Your task to perform on an android device: change text size in settings app Image 0: 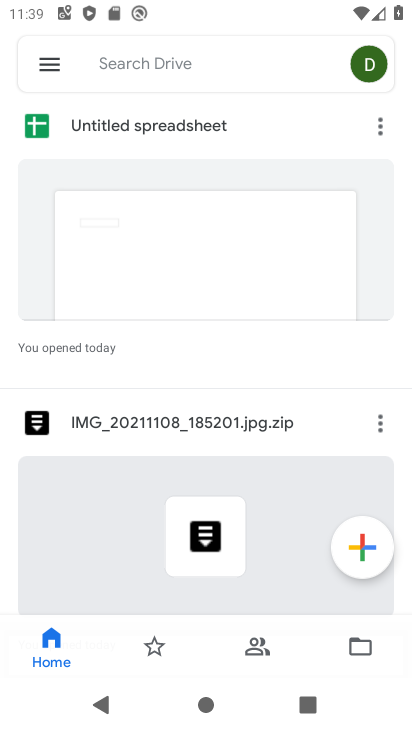
Step 0: press home button
Your task to perform on an android device: change text size in settings app Image 1: 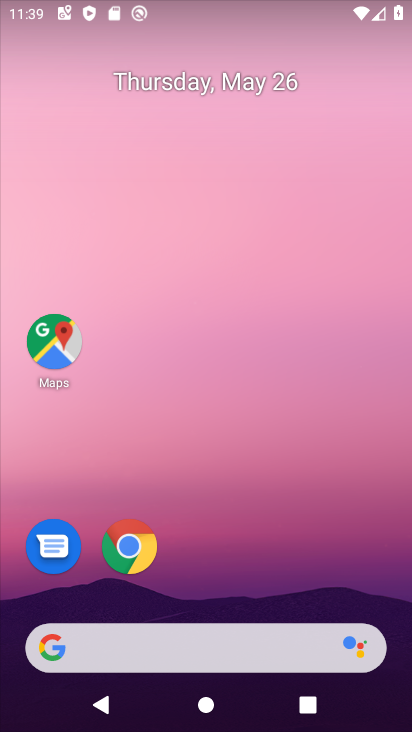
Step 1: drag from (270, 518) to (163, 82)
Your task to perform on an android device: change text size in settings app Image 2: 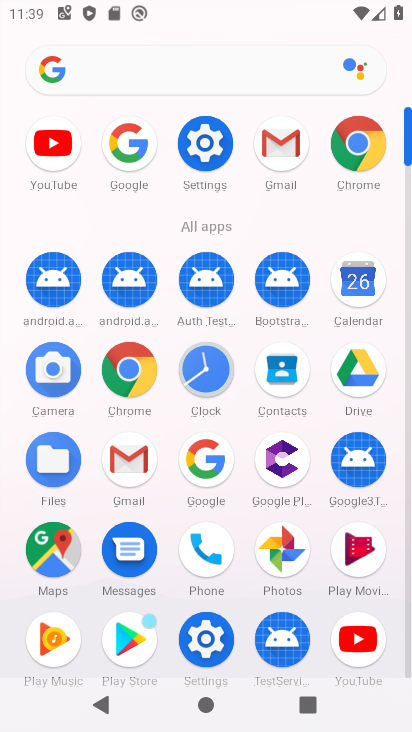
Step 2: click (199, 143)
Your task to perform on an android device: change text size in settings app Image 3: 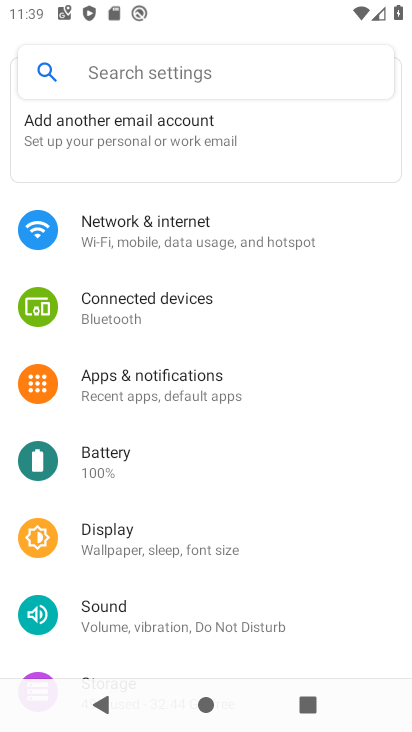
Step 3: click (114, 544)
Your task to perform on an android device: change text size in settings app Image 4: 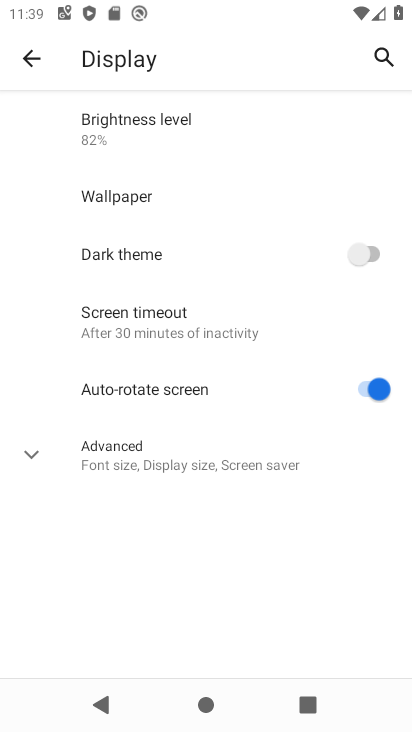
Step 4: click (99, 444)
Your task to perform on an android device: change text size in settings app Image 5: 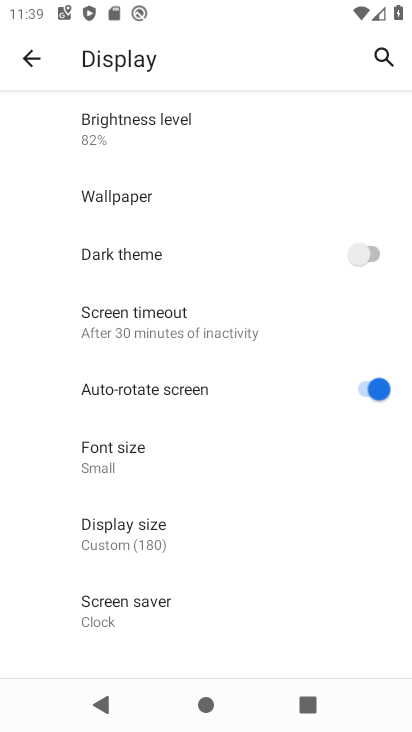
Step 5: click (103, 450)
Your task to perform on an android device: change text size in settings app Image 6: 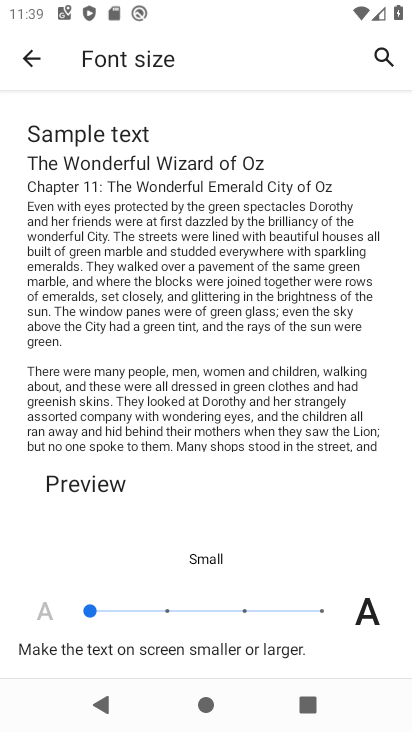
Step 6: click (154, 608)
Your task to perform on an android device: change text size in settings app Image 7: 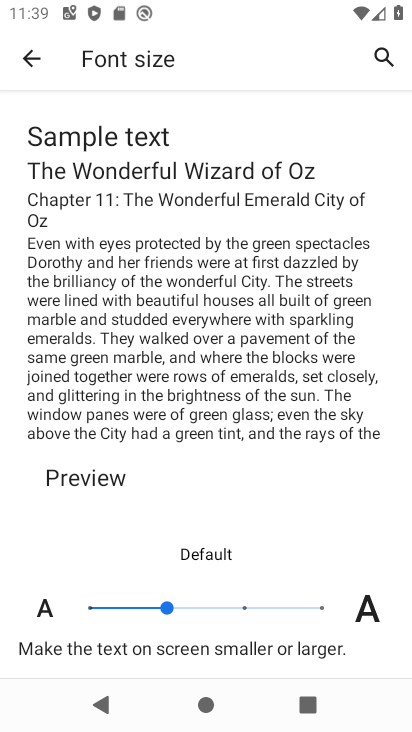
Step 7: task complete